Your task to perform on an android device: Go to network settings Image 0: 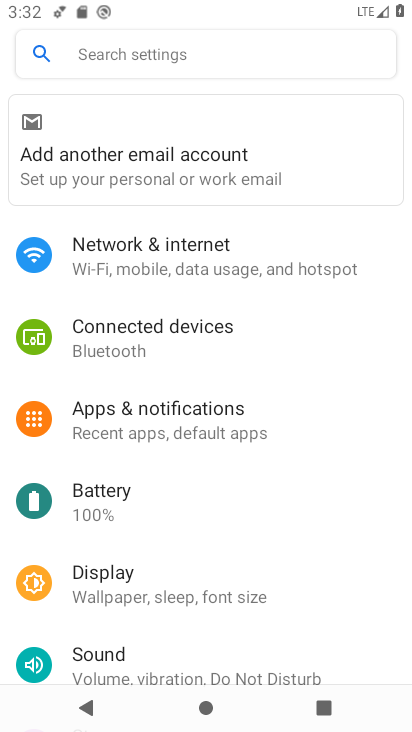
Step 0: press home button
Your task to perform on an android device: Go to network settings Image 1: 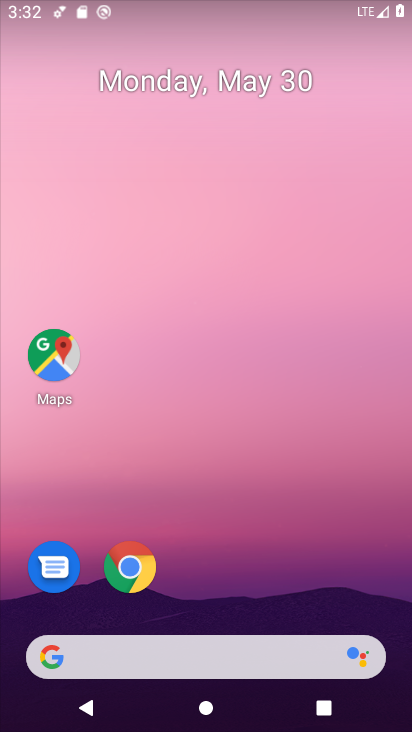
Step 1: drag from (234, 587) to (234, 3)
Your task to perform on an android device: Go to network settings Image 2: 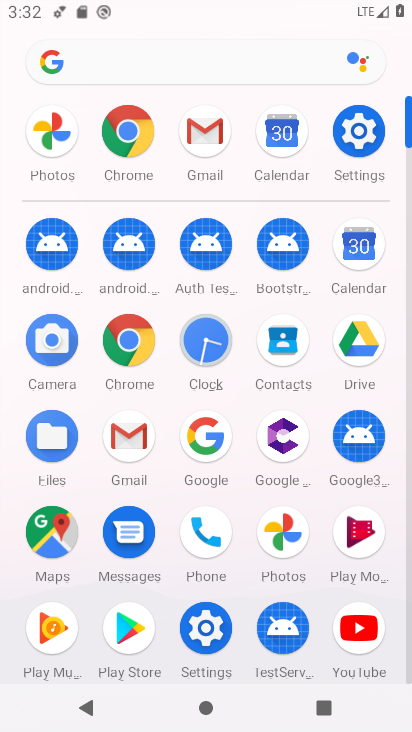
Step 2: click (359, 133)
Your task to perform on an android device: Go to network settings Image 3: 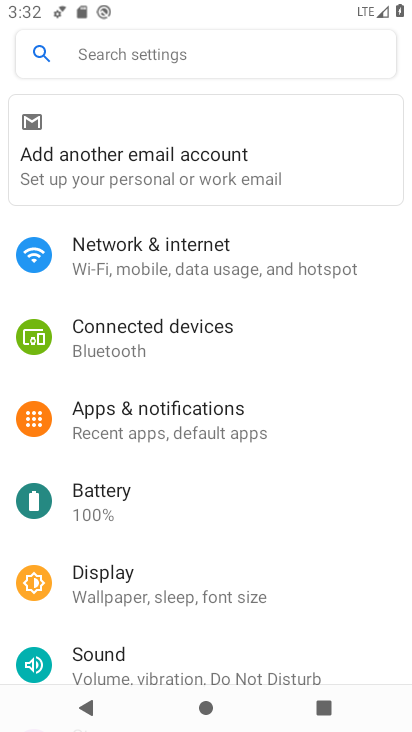
Step 3: click (187, 260)
Your task to perform on an android device: Go to network settings Image 4: 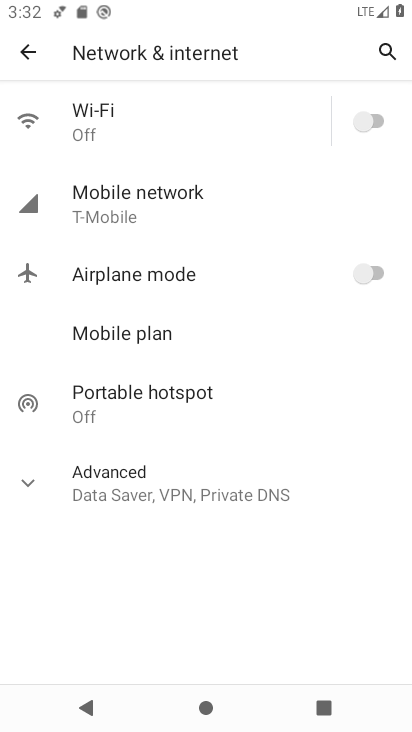
Step 4: click (128, 211)
Your task to perform on an android device: Go to network settings Image 5: 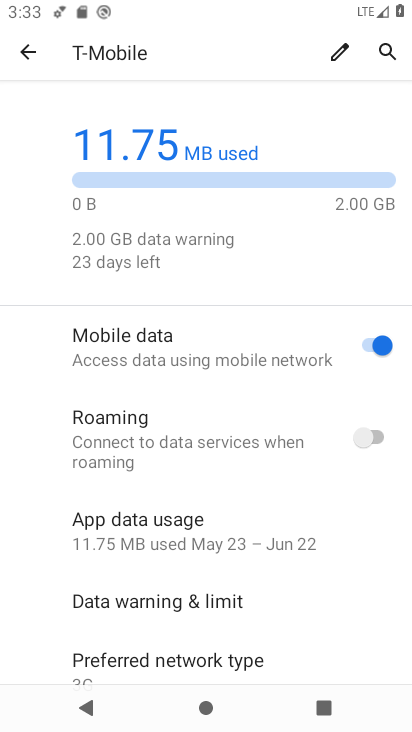
Step 5: task complete